Your task to perform on an android device: Open ESPN.com Image 0: 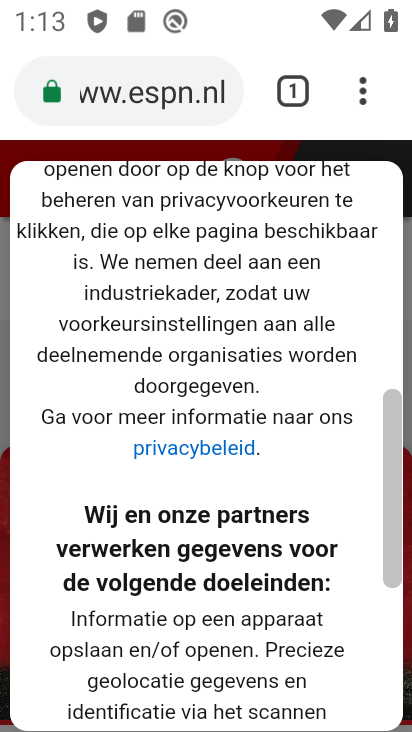
Step 0: task complete